Your task to perform on an android device: stop showing notifications on the lock screen Image 0: 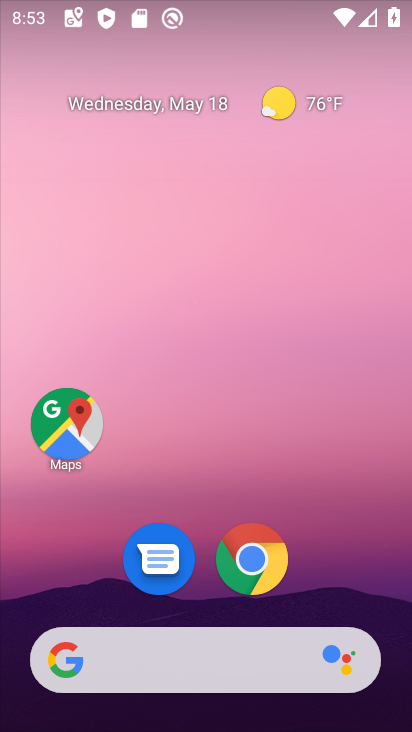
Step 0: drag from (347, 565) to (348, 28)
Your task to perform on an android device: stop showing notifications on the lock screen Image 1: 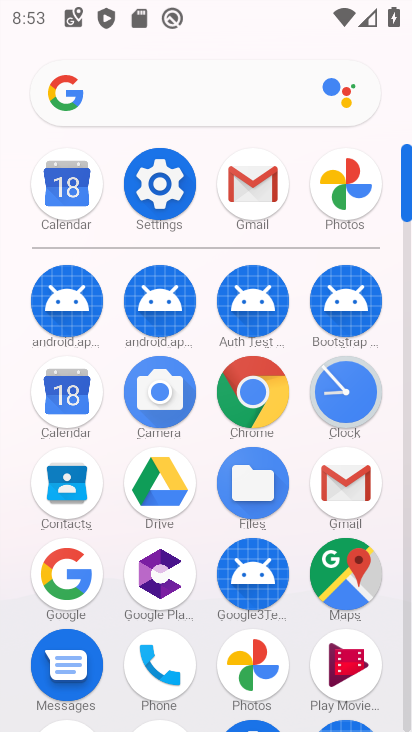
Step 1: click (154, 179)
Your task to perform on an android device: stop showing notifications on the lock screen Image 2: 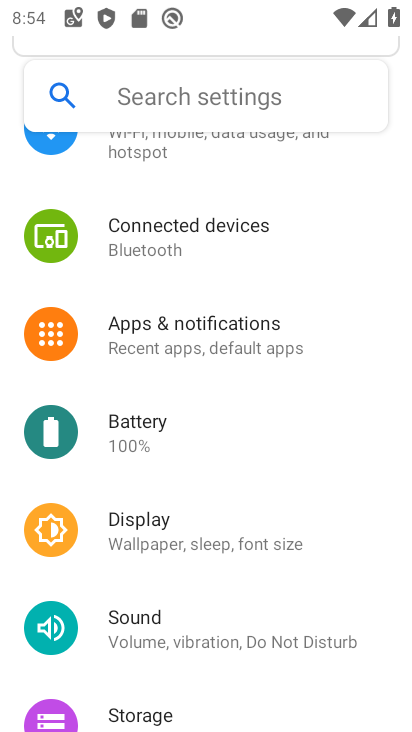
Step 2: click (165, 324)
Your task to perform on an android device: stop showing notifications on the lock screen Image 3: 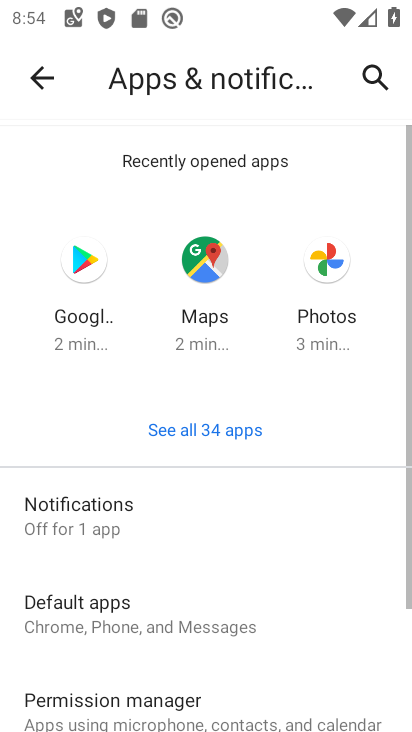
Step 3: click (122, 531)
Your task to perform on an android device: stop showing notifications on the lock screen Image 4: 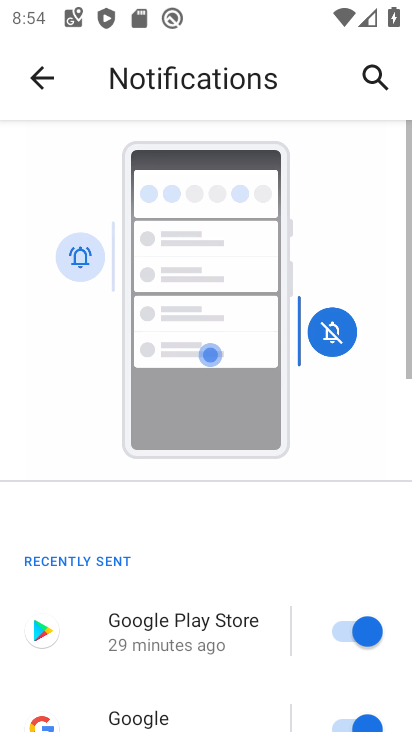
Step 4: drag from (178, 619) to (224, 48)
Your task to perform on an android device: stop showing notifications on the lock screen Image 5: 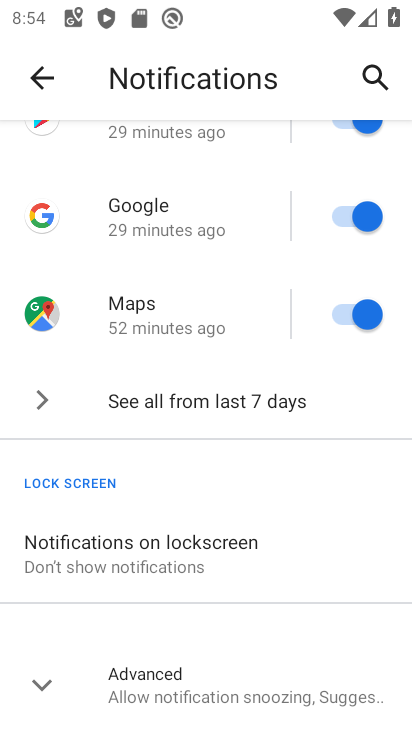
Step 5: click (136, 545)
Your task to perform on an android device: stop showing notifications on the lock screen Image 6: 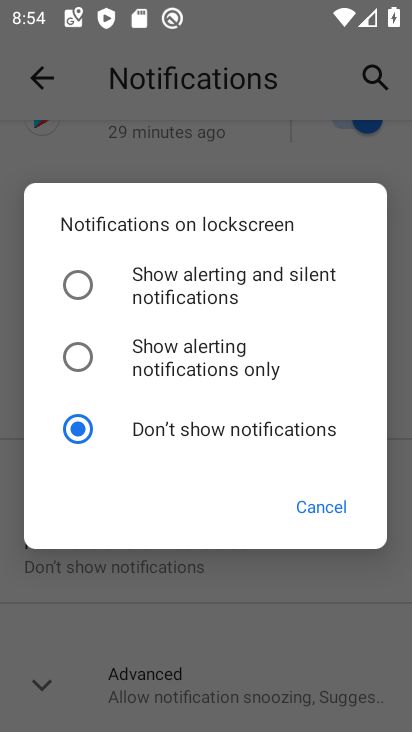
Step 6: task complete